Your task to perform on an android device: Open accessibility settings Image 0: 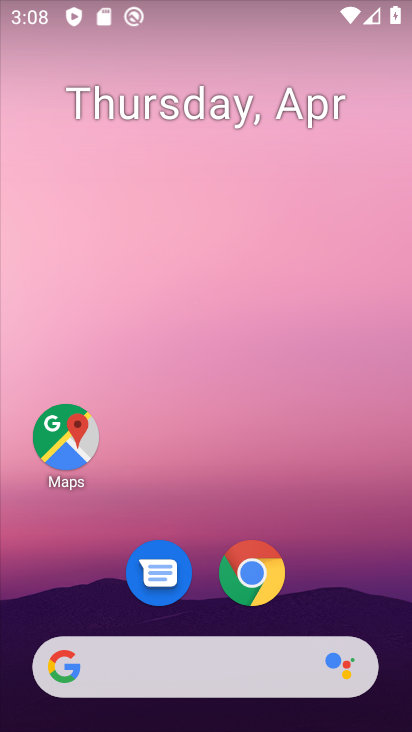
Step 0: drag from (361, 596) to (263, 6)
Your task to perform on an android device: Open accessibility settings Image 1: 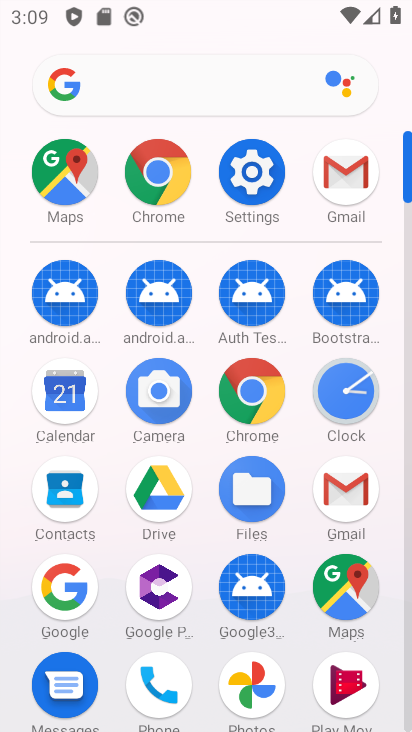
Step 1: click (252, 170)
Your task to perform on an android device: Open accessibility settings Image 2: 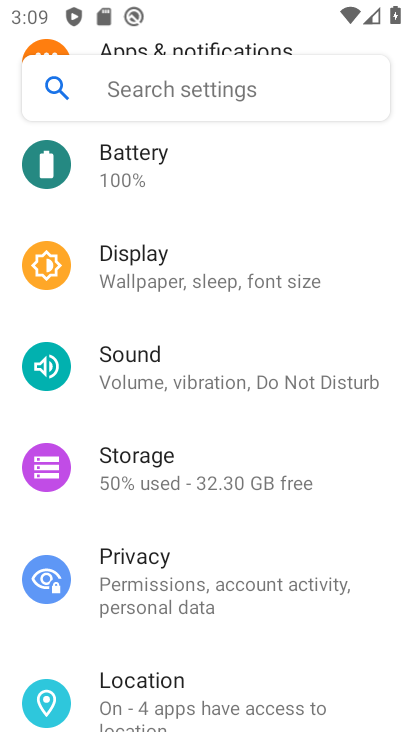
Step 2: drag from (140, 637) to (253, 157)
Your task to perform on an android device: Open accessibility settings Image 3: 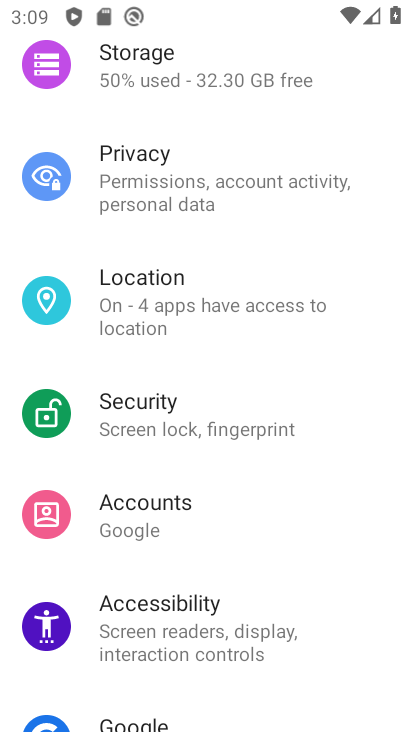
Step 3: click (202, 631)
Your task to perform on an android device: Open accessibility settings Image 4: 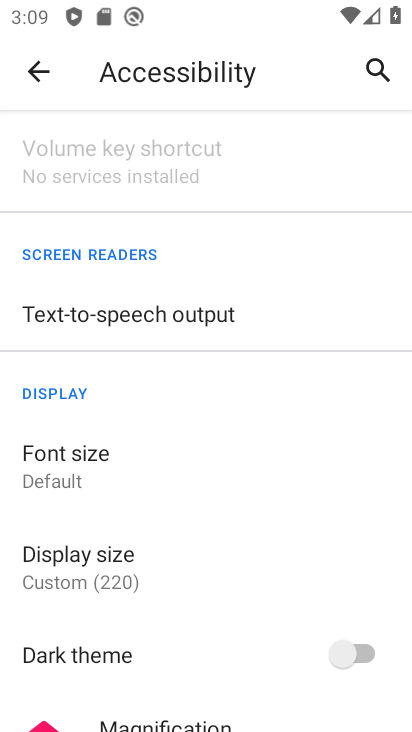
Step 4: task complete